Your task to perform on an android device: open wifi settings Image 0: 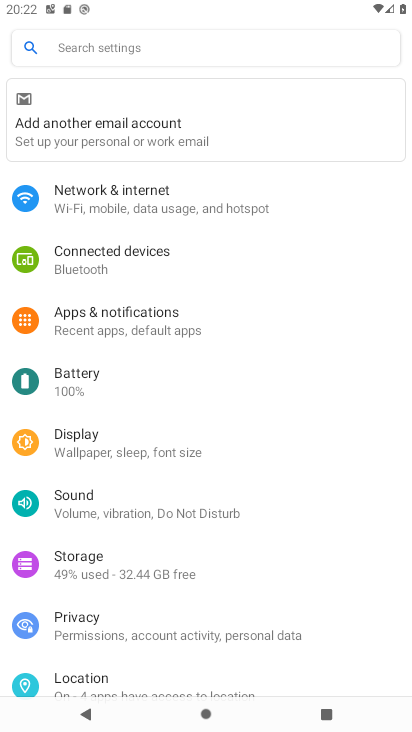
Step 0: press home button
Your task to perform on an android device: open wifi settings Image 1: 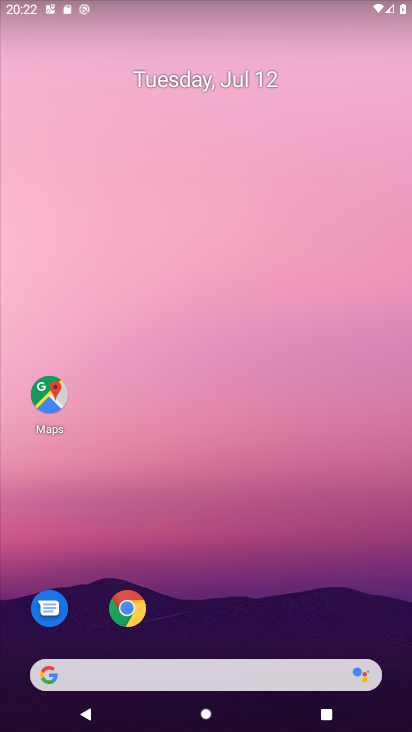
Step 1: drag from (156, 676) to (226, 270)
Your task to perform on an android device: open wifi settings Image 2: 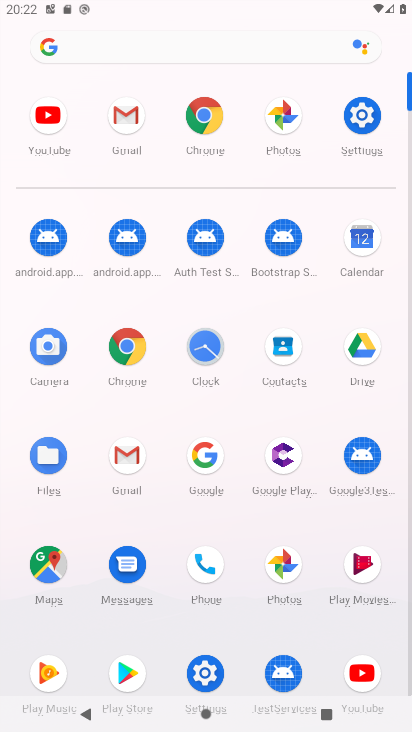
Step 2: click (361, 117)
Your task to perform on an android device: open wifi settings Image 3: 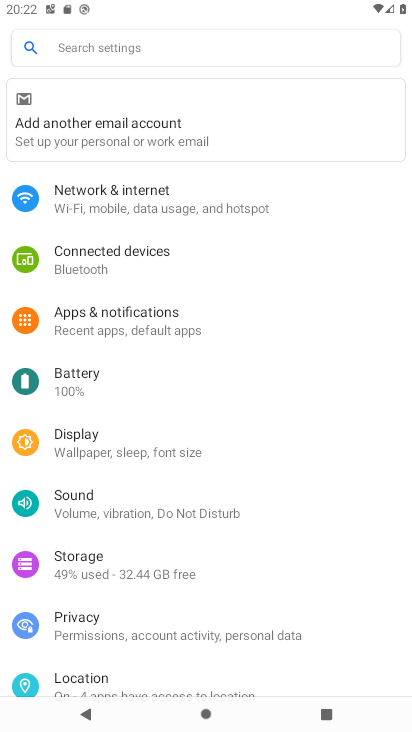
Step 3: click (148, 195)
Your task to perform on an android device: open wifi settings Image 4: 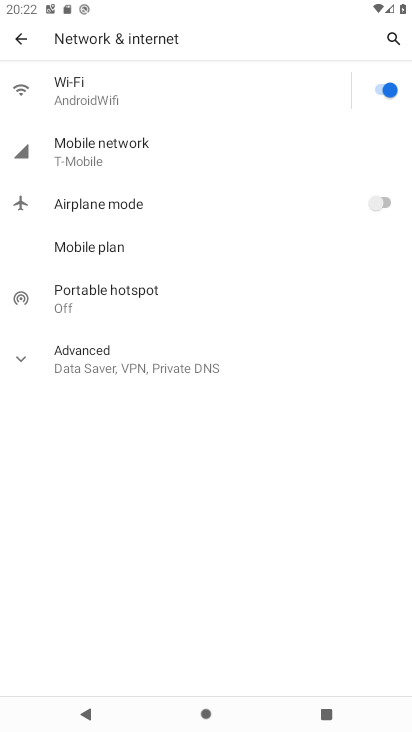
Step 4: click (84, 97)
Your task to perform on an android device: open wifi settings Image 5: 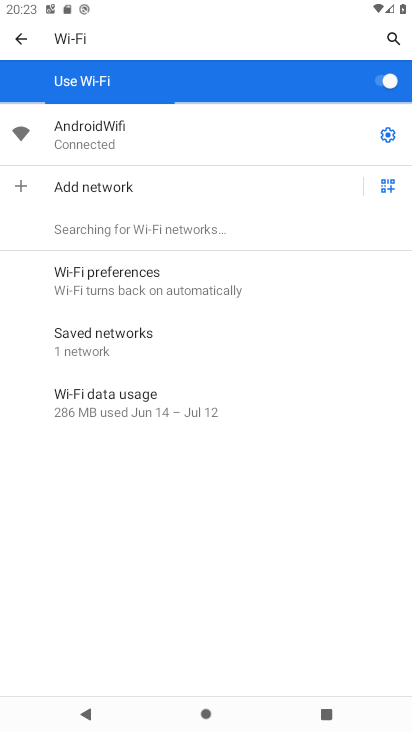
Step 5: task complete